Your task to perform on an android device: Go to Yahoo.com Image 0: 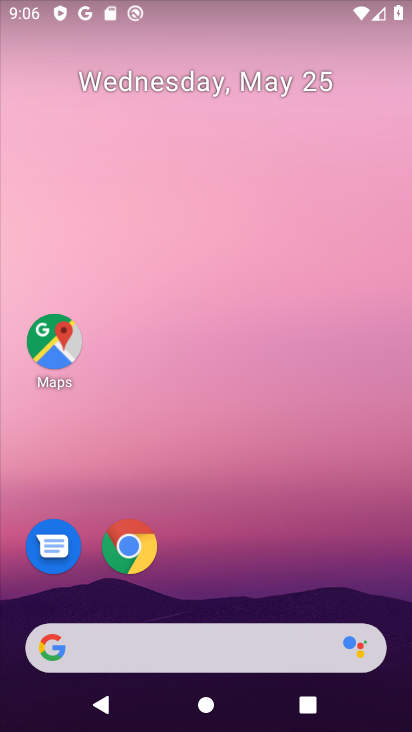
Step 0: click (131, 558)
Your task to perform on an android device: Go to Yahoo.com Image 1: 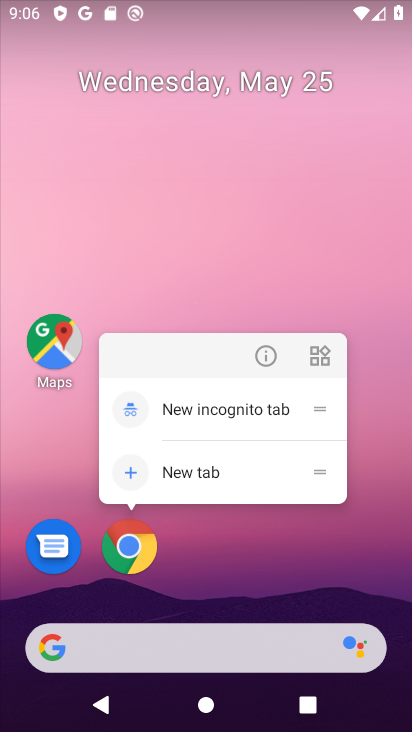
Step 1: click (131, 546)
Your task to perform on an android device: Go to Yahoo.com Image 2: 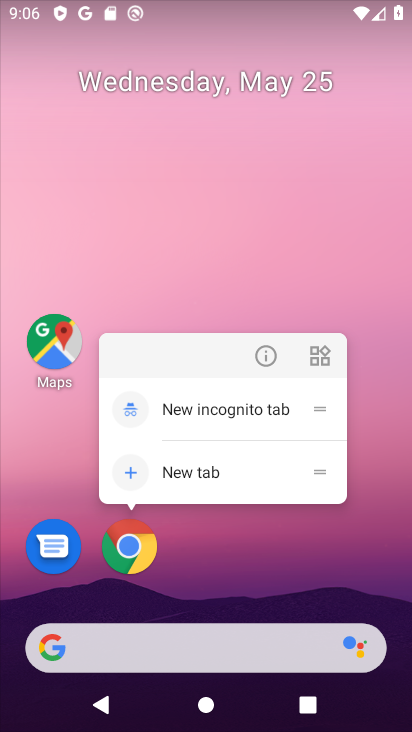
Step 2: click (131, 546)
Your task to perform on an android device: Go to Yahoo.com Image 3: 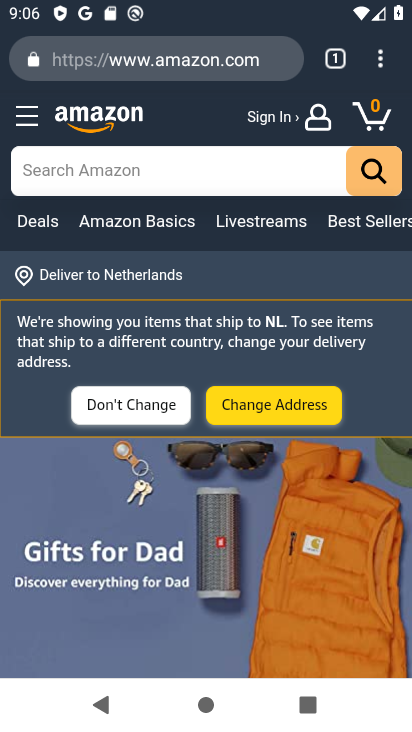
Step 3: drag from (387, 67) to (322, 114)
Your task to perform on an android device: Go to Yahoo.com Image 4: 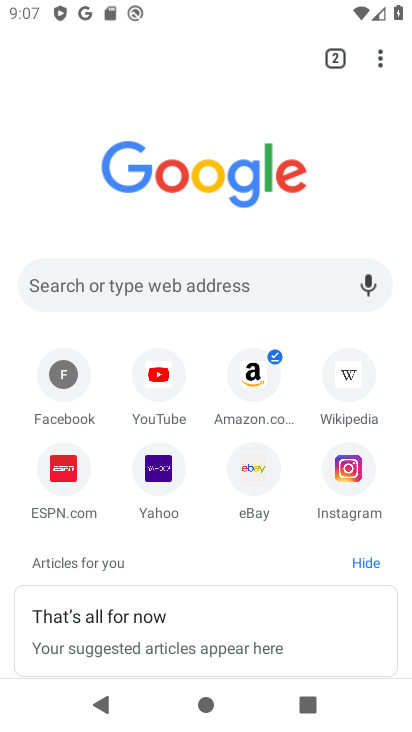
Step 4: click (162, 478)
Your task to perform on an android device: Go to Yahoo.com Image 5: 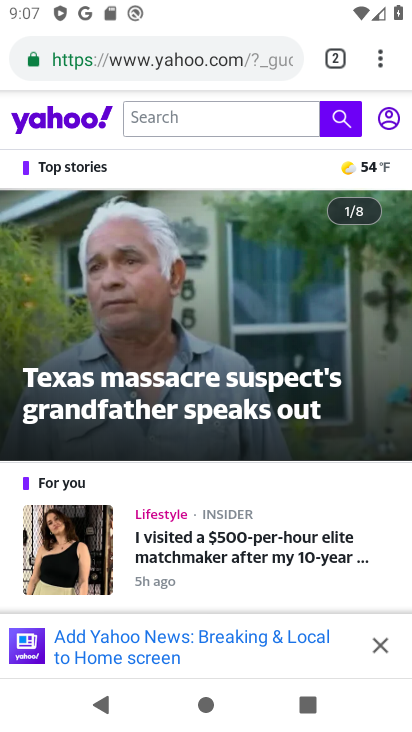
Step 5: task complete